Your task to perform on an android device: change timer sound Image 0: 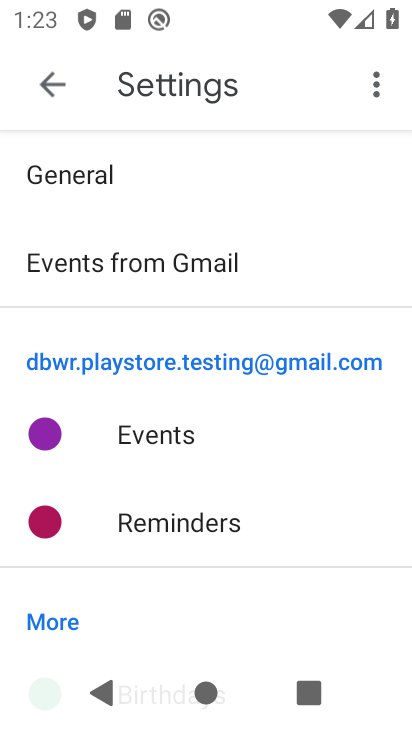
Step 0: press home button
Your task to perform on an android device: change timer sound Image 1: 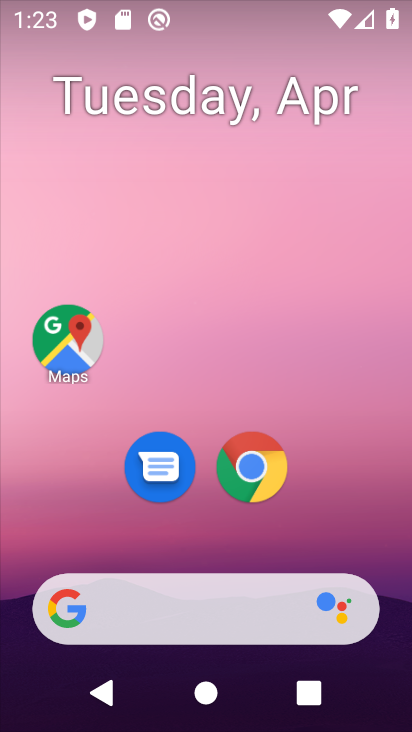
Step 1: drag from (377, 509) to (391, 110)
Your task to perform on an android device: change timer sound Image 2: 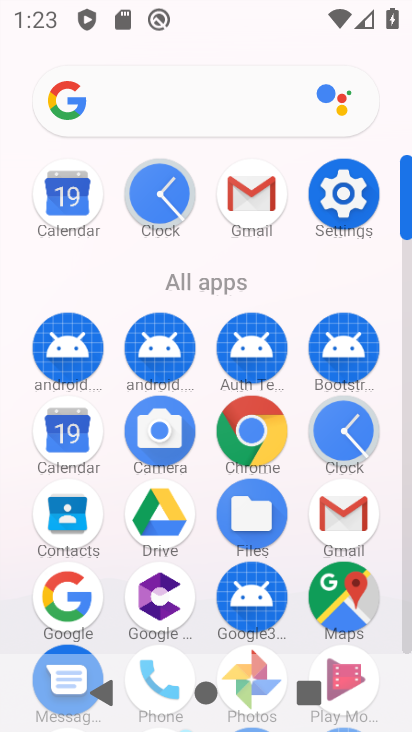
Step 2: click (342, 422)
Your task to perform on an android device: change timer sound Image 3: 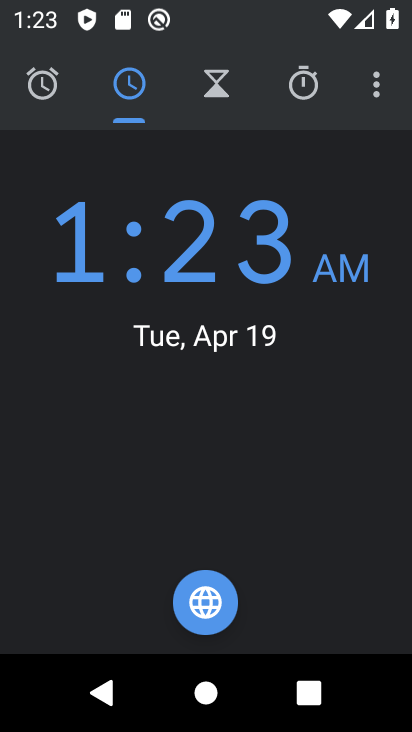
Step 3: click (376, 92)
Your task to perform on an android device: change timer sound Image 4: 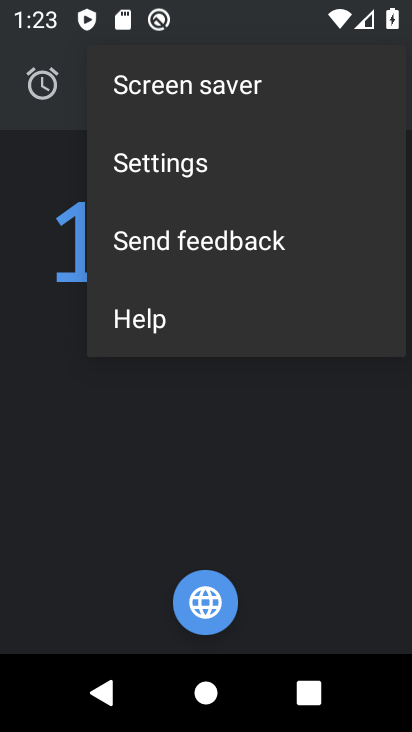
Step 4: click (186, 167)
Your task to perform on an android device: change timer sound Image 5: 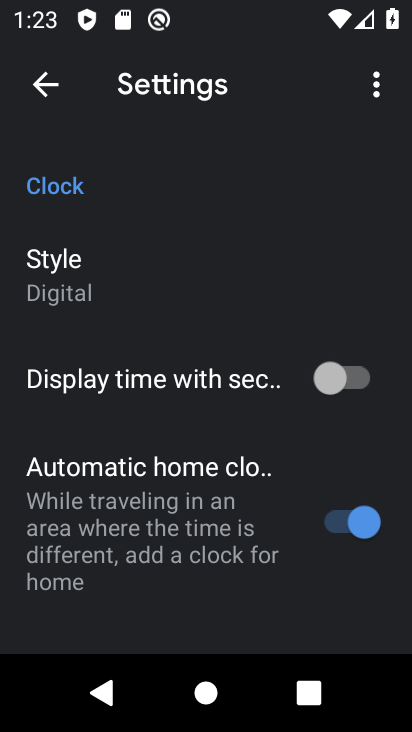
Step 5: drag from (300, 576) to (295, 369)
Your task to perform on an android device: change timer sound Image 6: 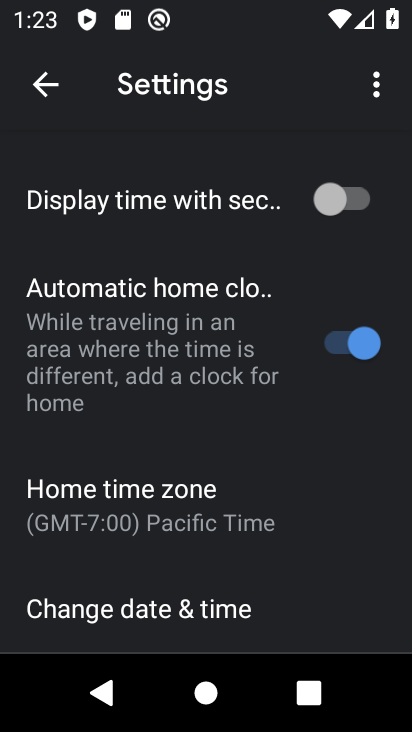
Step 6: drag from (335, 546) to (335, 374)
Your task to perform on an android device: change timer sound Image 7: 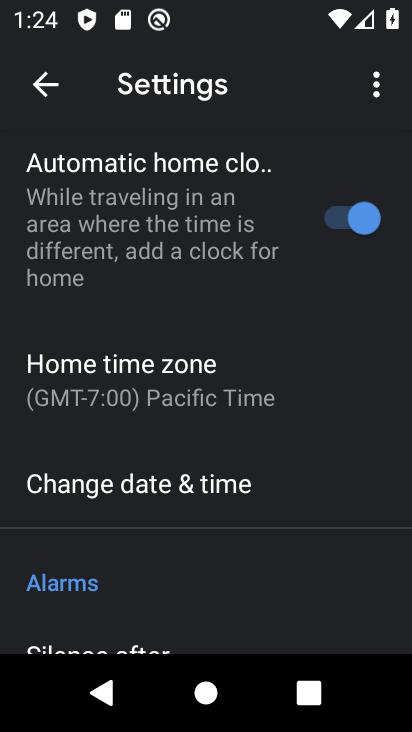
Step 7: drag from (347, 582) to (345, 348)
Your task to perform on an android device: change timer sound Image 8: 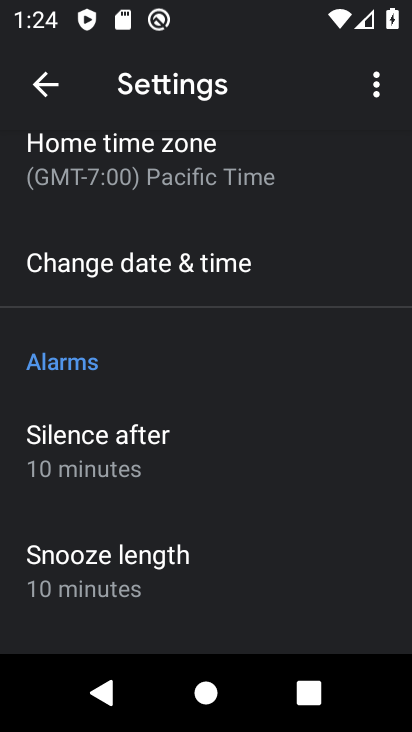
Step 8: drag from (337, 534) to (340, 288)
Your task to perform on an android device: change timer sound Image 9: 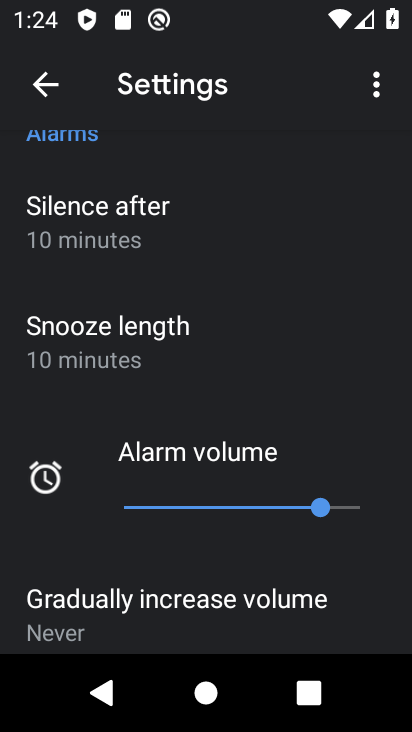
Step 9: drag from (362, 579) to (370, 279)
Your task to perform on an android device: change timer sound Image 10: 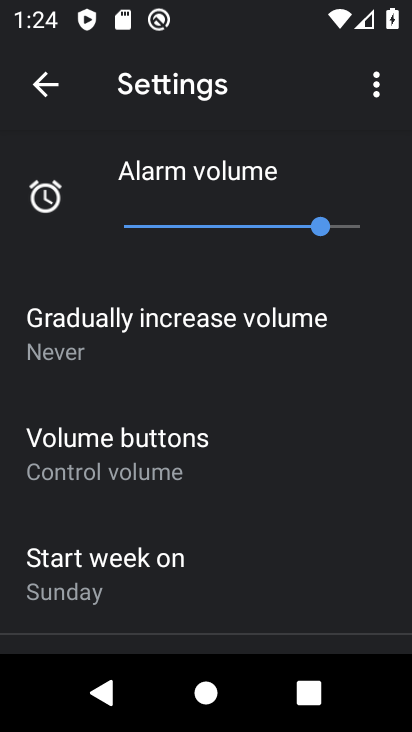
Step 10: drag from (336, 522) to (351, 296)
Your task to perform on an android device: change timer sound Image 11: 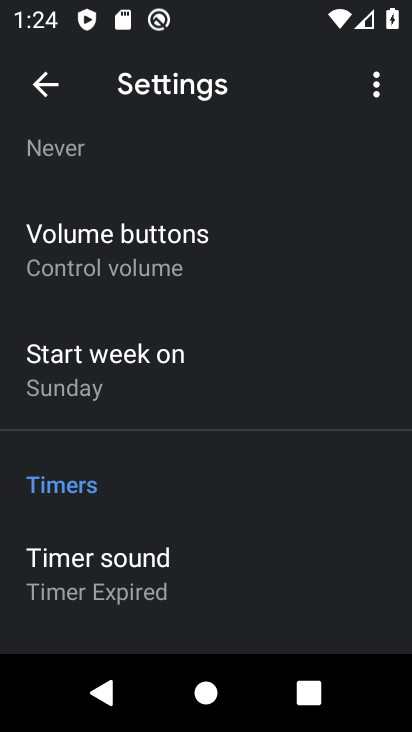
Step 11: drag from (330, 535) to (330, 342)
Your task to perform on an android device: change timer sound Image 12: 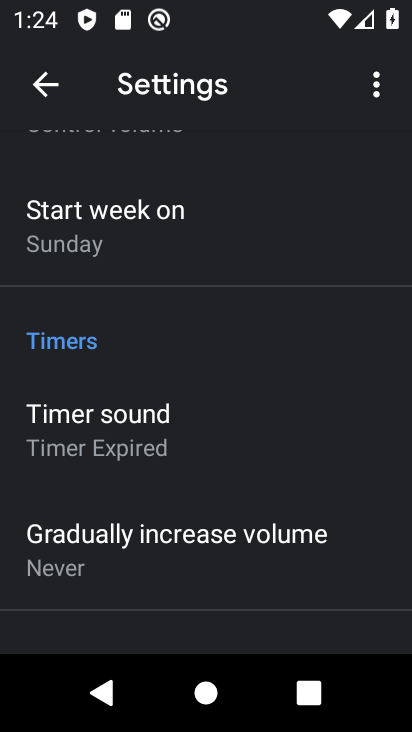
Step 12: click (74, 433)
Your task to perform on an android device: change timer sound Image 13: 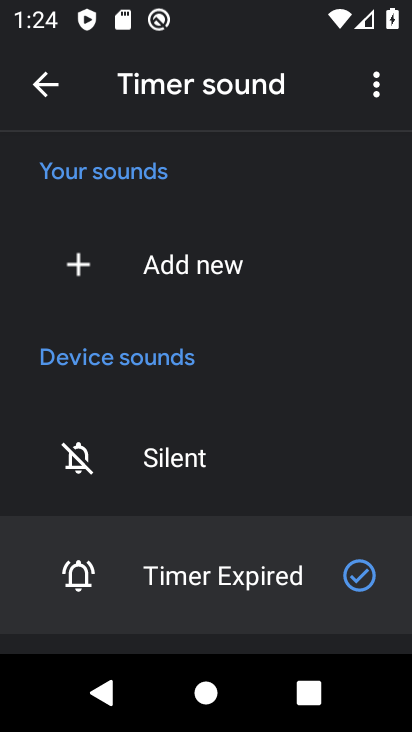
Step 13: click (177, 454)
Your task to perform on an android device: change timer sound Image 14: 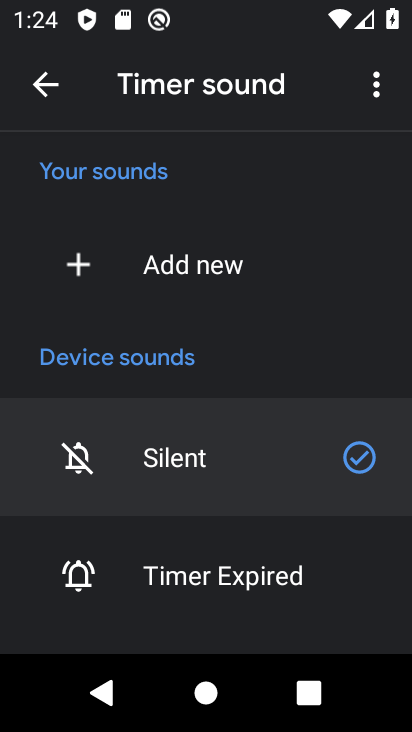
Step 14: task complete